Your task to perform on an android device: turn off data saver in the chrome app Image 0: 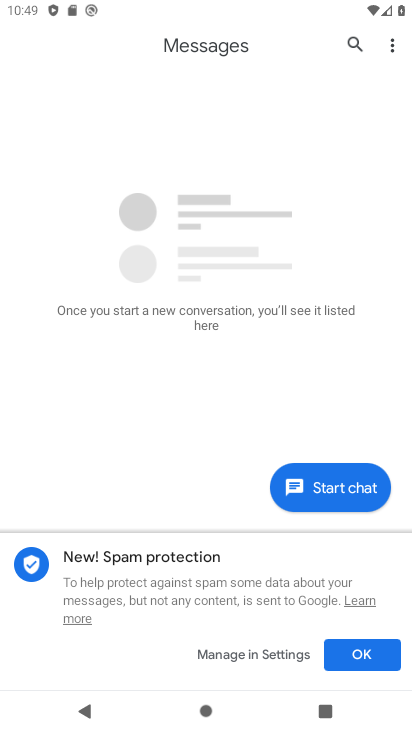
Step 0: press home button
Your task to perform on an android device: turn off data saver in the chrome app Image 1: 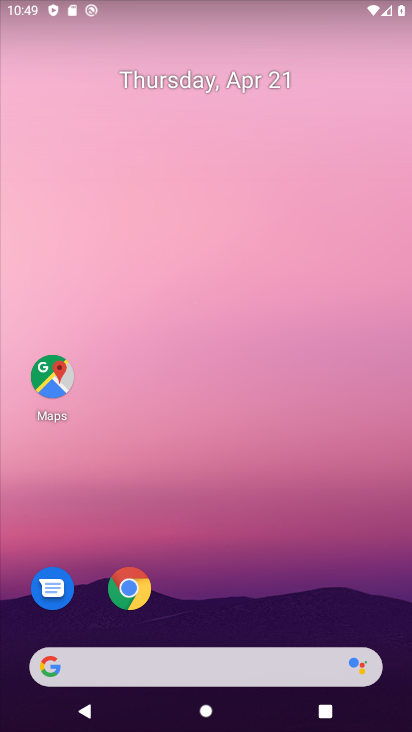
Step 1: click (140, 588)
Your task to perform on an android device: turn off data saver in the chrome app Image 2: 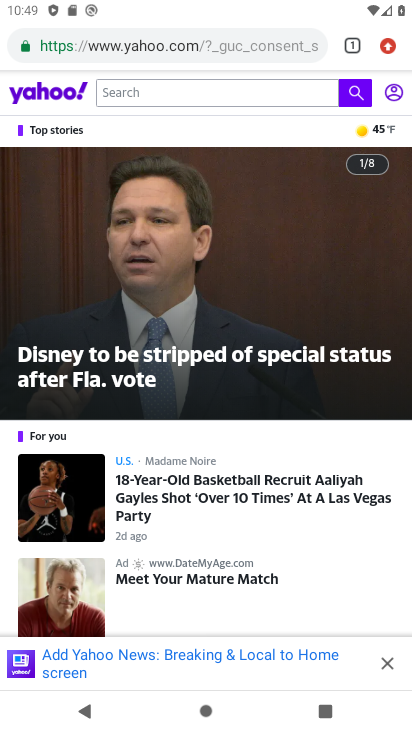
Step 2: drag from (393, 47) to (274, 604)
Your task to perform on an android device: turn off data saver in the chrome app Image 3: 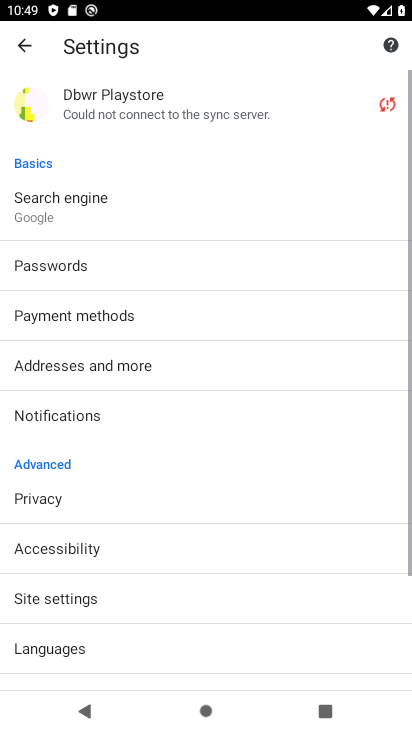
Step 3: drag from (152, 658) to (196, 344)
Your task to perform on an android device: turn off data saver in the chrome app Image 4: 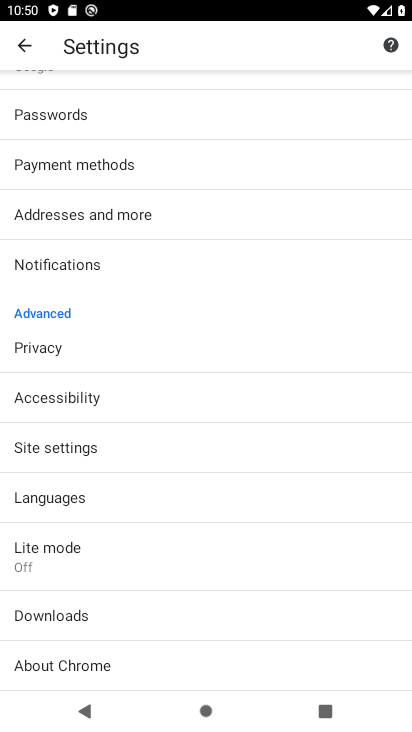
Step 4: click (68, 558)
Your task to perform on an android device: turn off data saver in the chrome app Image 5: 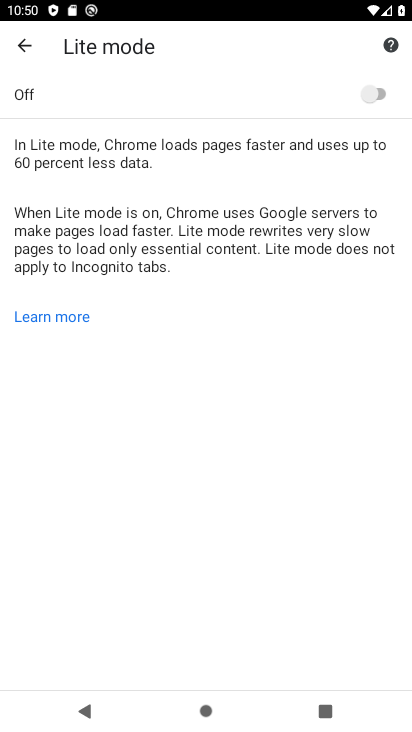
Step 5: task complete